Your task to perform on an android device: turn off javascript in the chrome app Image 0: 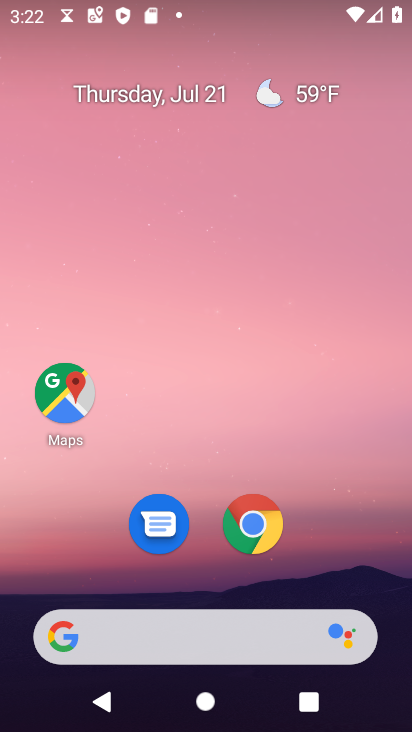
Step 0: press home button
Your task to perform on an android device: turn off javascript in the chrome app Image 1: 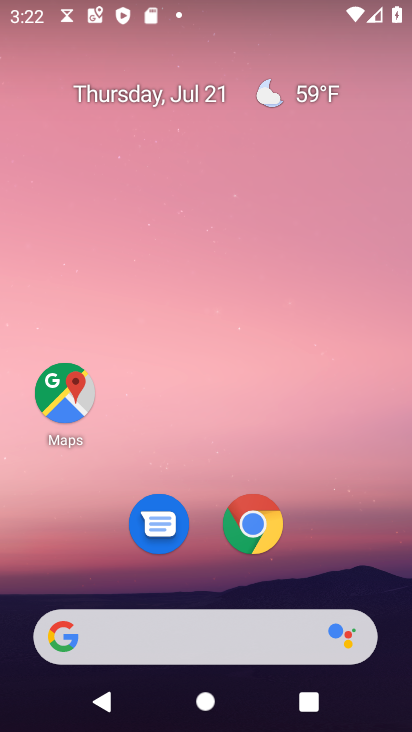
Step 1: click (257, 521)
Your task to perform on an android device: turn off javascript in the chrome app Image 2: 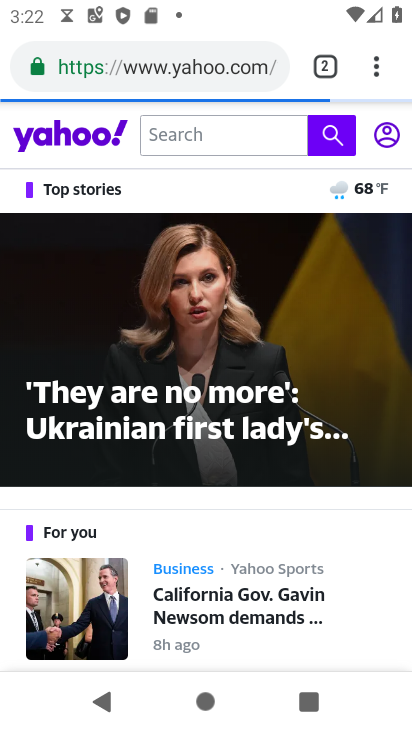
Step 2: drag from (377, 79) to (199, 523)
Your task to perform on an android device: turn off javascript in the chrome app Image 3: 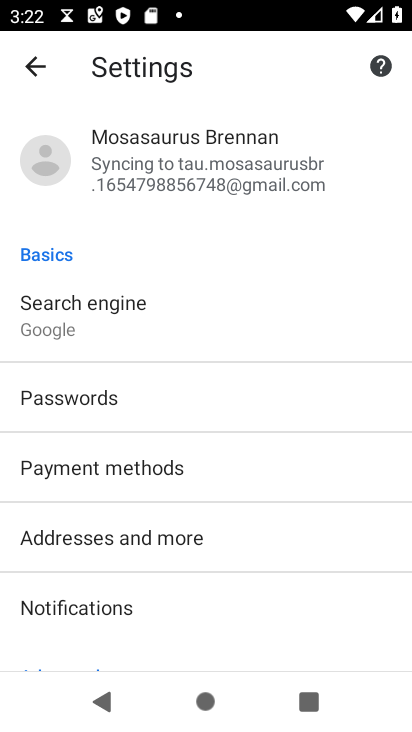
Step 3: drag from (172, 549) to (198, 77)
Your task to perform on an android device: turn off javascript in the chrome app Image 4: 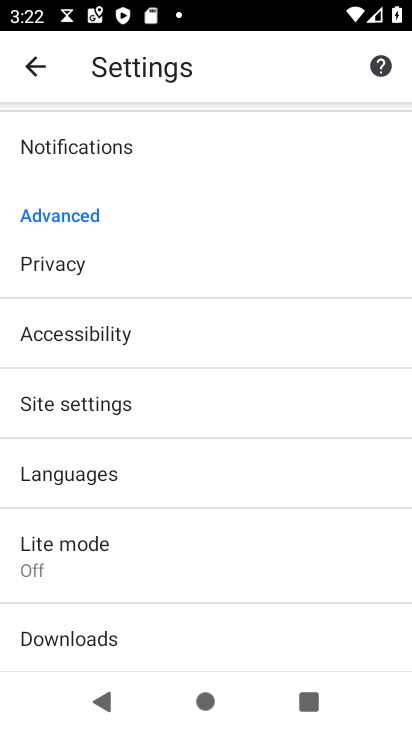
Step 4: click (120, 404)
Your task to perform on an android device: turn off javascript in the chrome app Image 5: 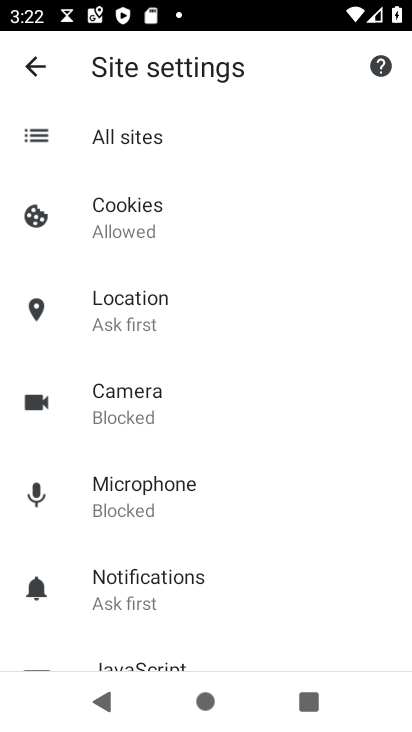
Step 5: drag from (238, 562) to (221, 235)
Your task to perform on an android device: turn off javascript in the chrome app Image 6: 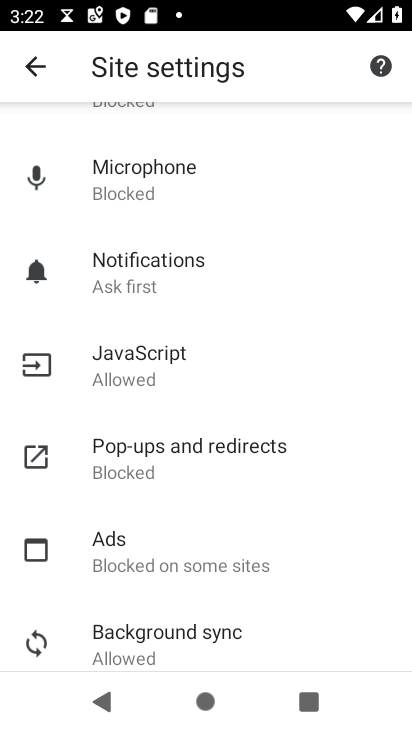
Step 6: click (166, 364)
Your task to perform on an android device: turn off javascript in the chrome app Image 7: 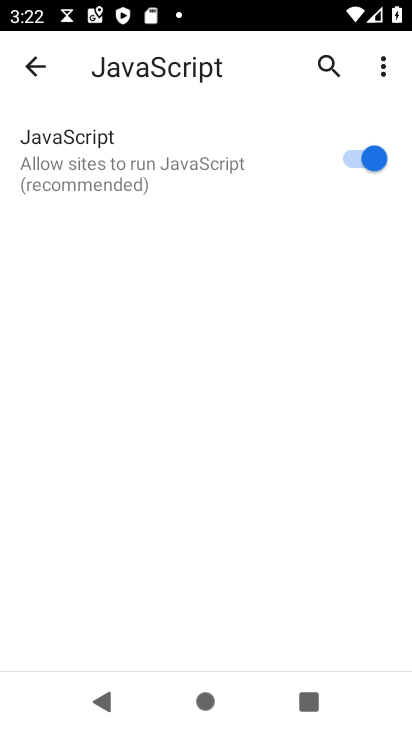
Step 7: click (352, 157)
Your task to perform on an android device: turn off javascript in the chrome app Image 8: 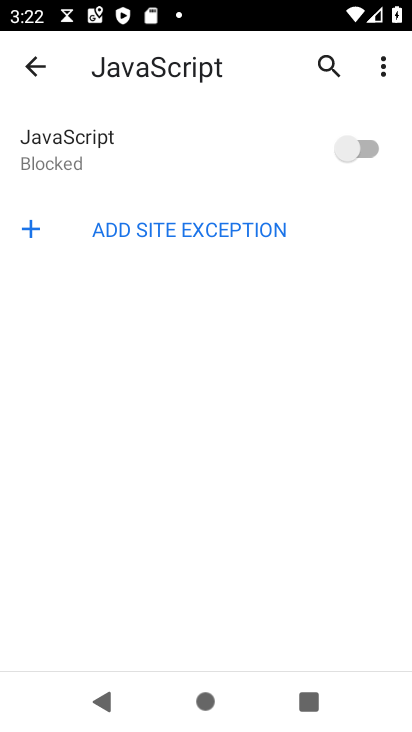
Step 8: task complete